Your task to perform on an android device: Go to Amazon Image 0: 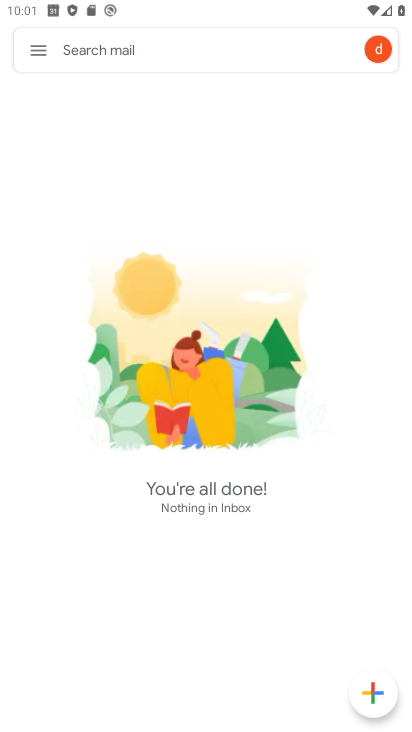
Step 0: press home button
Your task to perform on an android device: Go to Amazon Image 1: 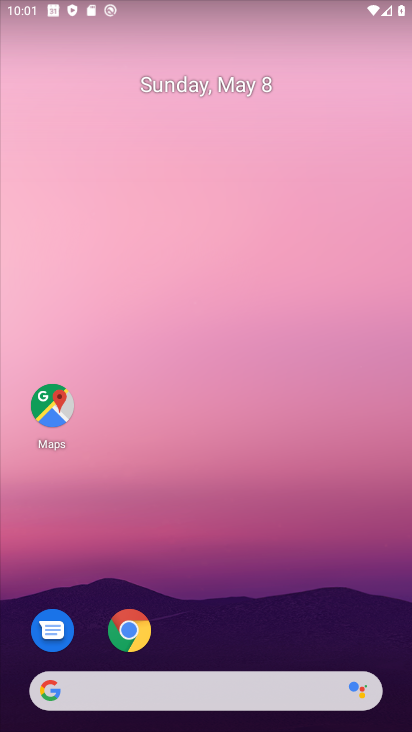
Step 1: click (123, 637)
Your task to perform on an android device: Go to Amazon Image 2: 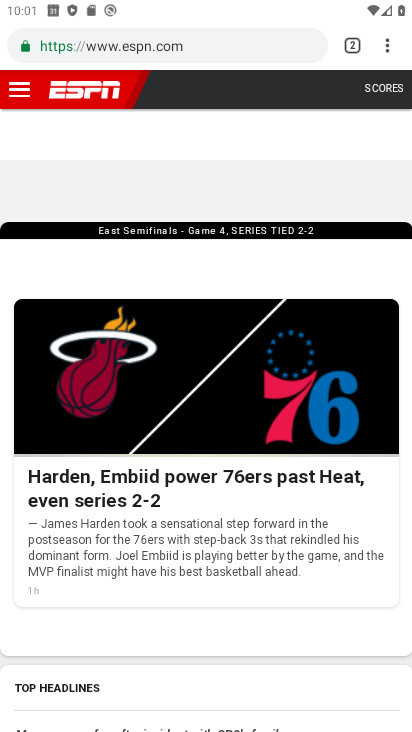
Step 2: click (389, 49)
Your task to perform on an android device: Go to Amazon Image 3: 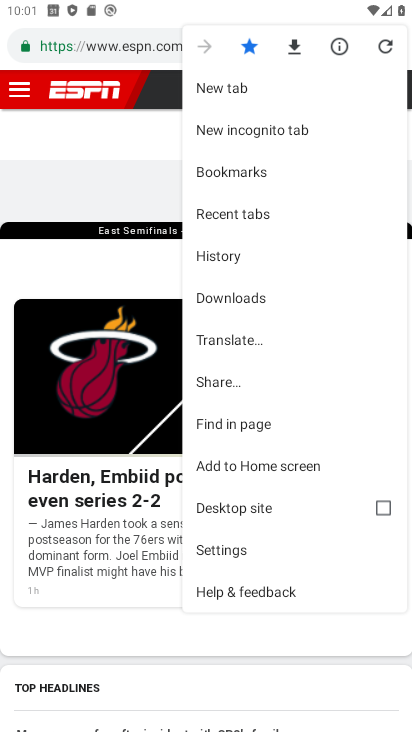
Step 3: click (226, 87)
Your task to perform on an android device: Go to Amazon Image 4: 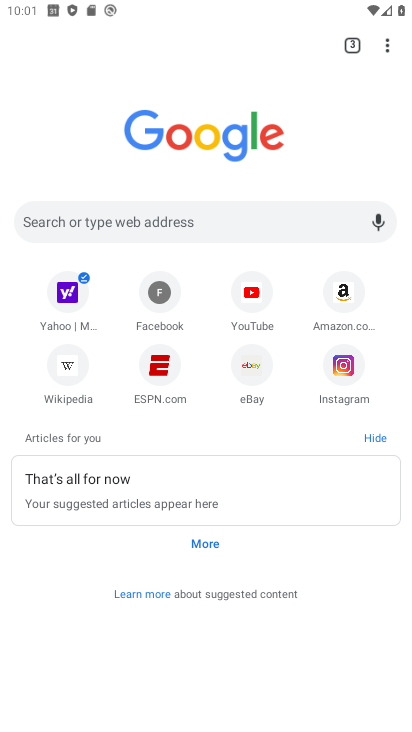
Step 4: click (344, 297)
Your task to perform on an android device: Go to Amazon Image 5: 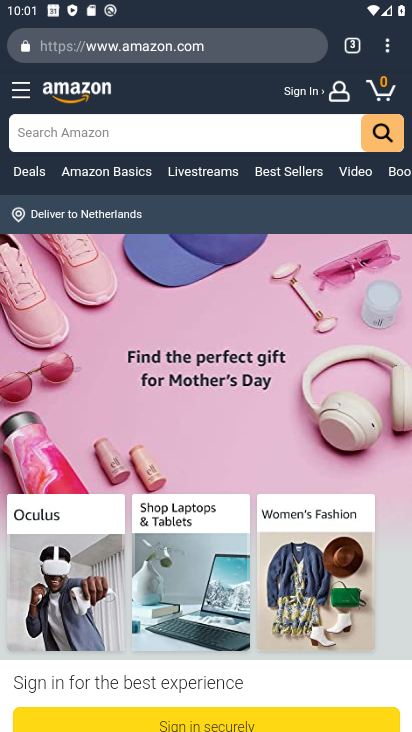
Step 5: task complete